Your task to perform on an android device: Do I have any events this weekend? Image 0: 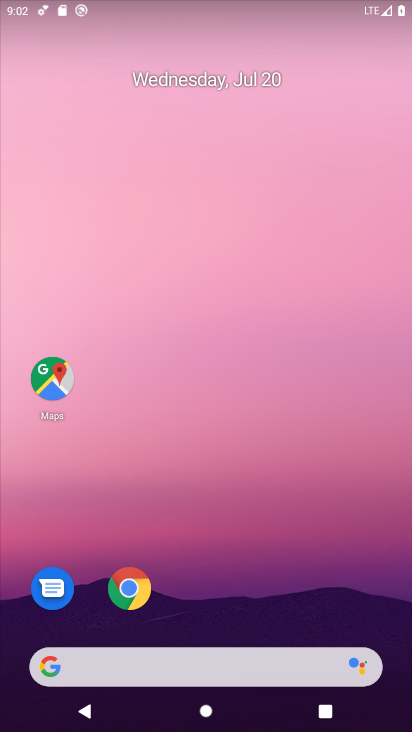
Step 0: press home button
Your task to perform on an android device: Do I have any events this weekend? Image 1: 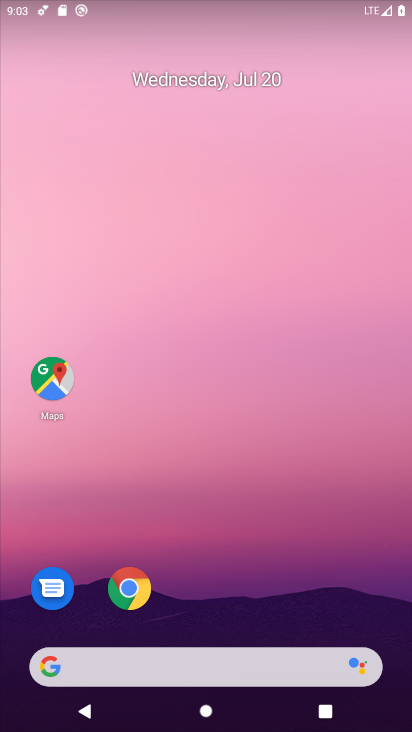
Step 1: drag from (14, 304) to (406, 382)
Your task to perform on an android device: Do I have any events this weekend? Image 2: 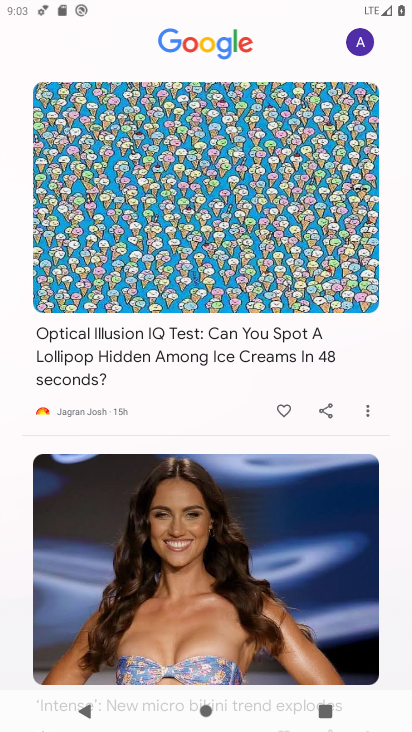
Step 2: press back button
Your task to perform on an android device: Do I have any events this weekend? Image 3: 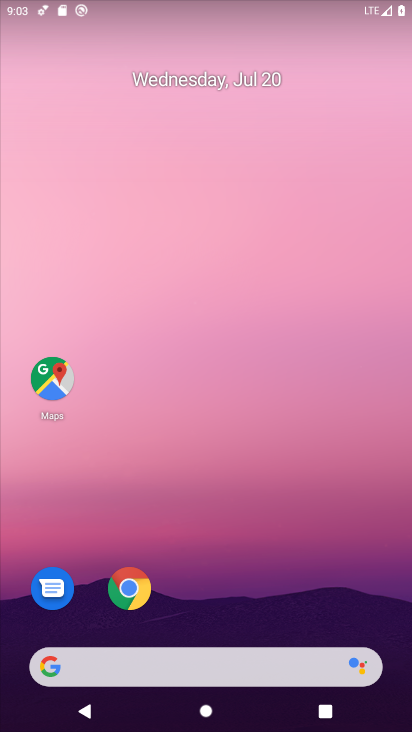
Step 3: drag from (257, 600) to (282, 54)
Your task to perform on an android device: Do I have any events this weekend? Image 4: 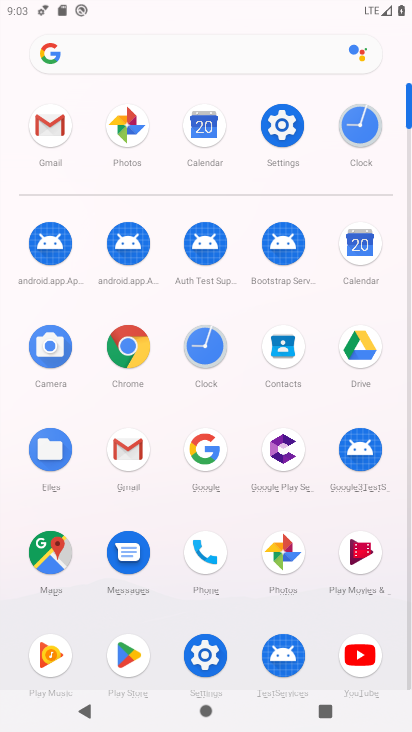
Step 4: click (360, 239)
Your task to perform on an android device: Do I have any events this weekend? Image 5: 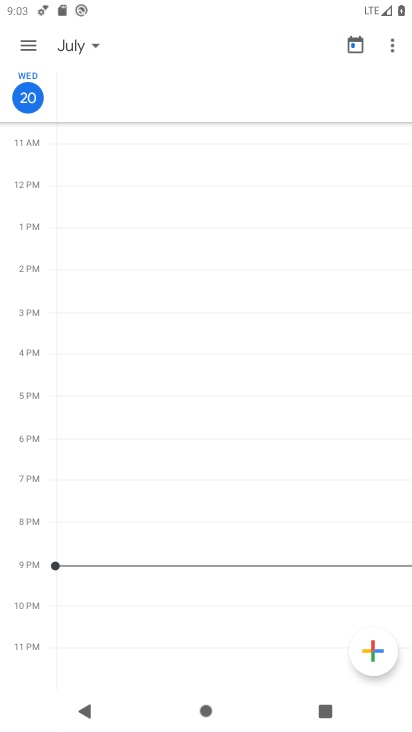
Step 5: click (43, 100)
Your task to perform on an android device: Do I have any events this weekend? Image 6: 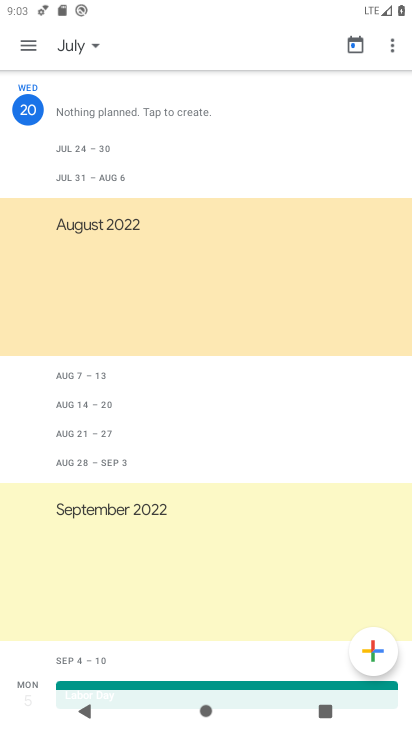
Step 6: click (32, 38)
Your task to perform on an android device: Do I have any events this weekend? Image 7: 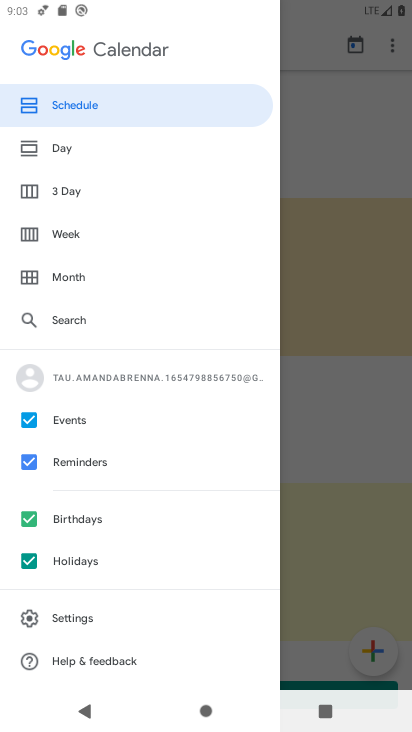
Step 7: click (61, 234)
Your task to perform on an android device: Do I have any events this weekend? Image 8: 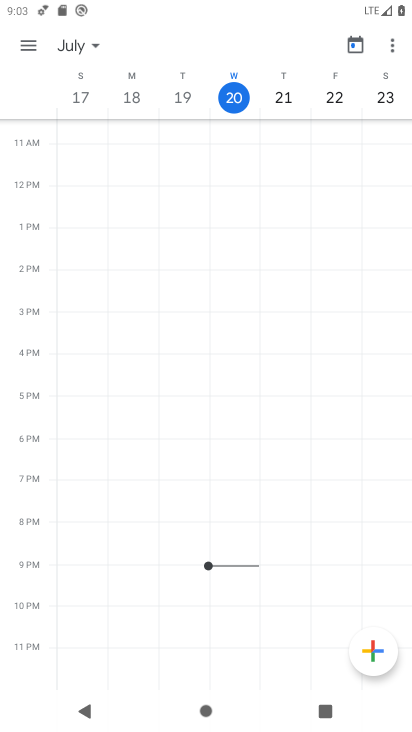
Step 8: task complete